Your task to perform on an android device: Open the phone app and click the voicemail tab. Image 0: 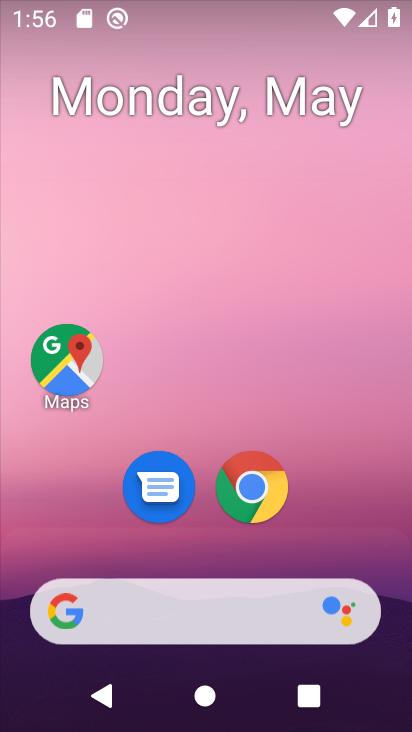
Step 0: drag from (346, 554) to (264, 19)
Your task to perform on an android device: Open the phone app and click the voicemail tab. Image 1: 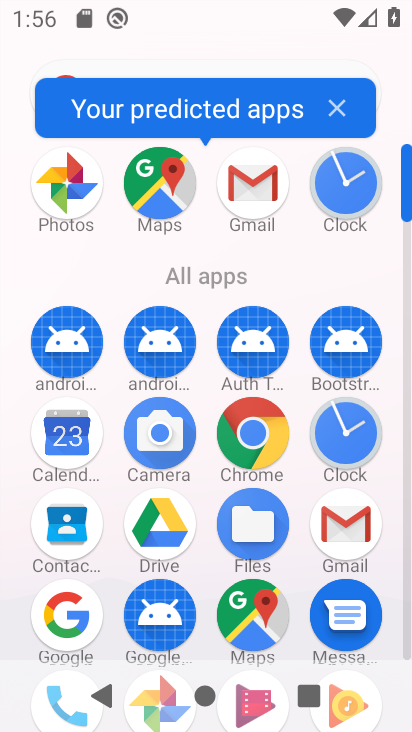
Step 1: click (407, 653)
Your task to perform on an android device: Open the phone app and click the voicemail tab. Image 2: 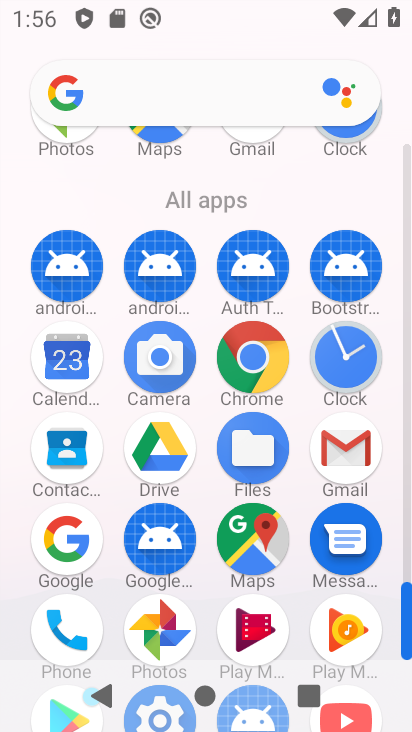
Step 2: click (57, 606)
Your task to perform on an android device: Open the phone app and click the voicemail tab. Image 3: 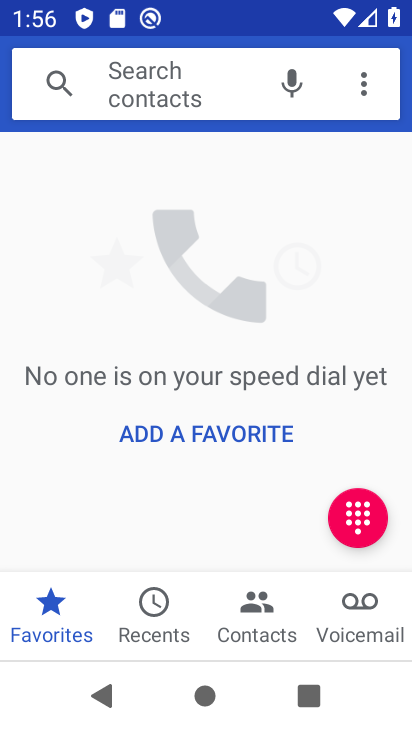
Step 3: click (354, 633)
Your task to perform on an android device: Open the phone app and click the voicemail tab. Image 4: 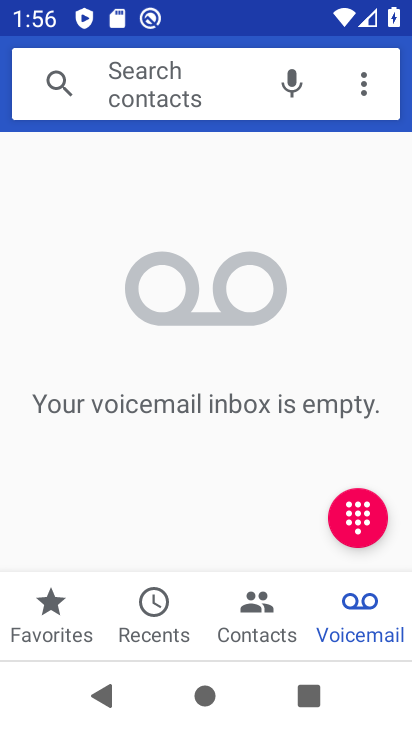
Step 4: task complete